Your task to perform on an android device: Add "razer nari" to the cart on amazon, then select checkout. Image 0: 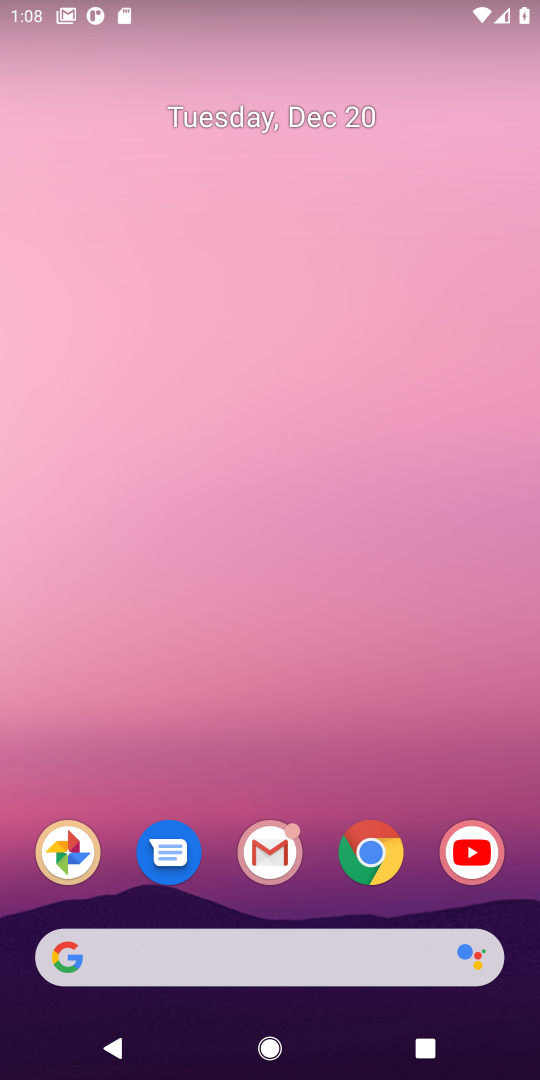
Step 0: click (378, 851)
Your task to perform on an android device: Add "razer nari" to the cart on amazon, then select checkout. Image 1: 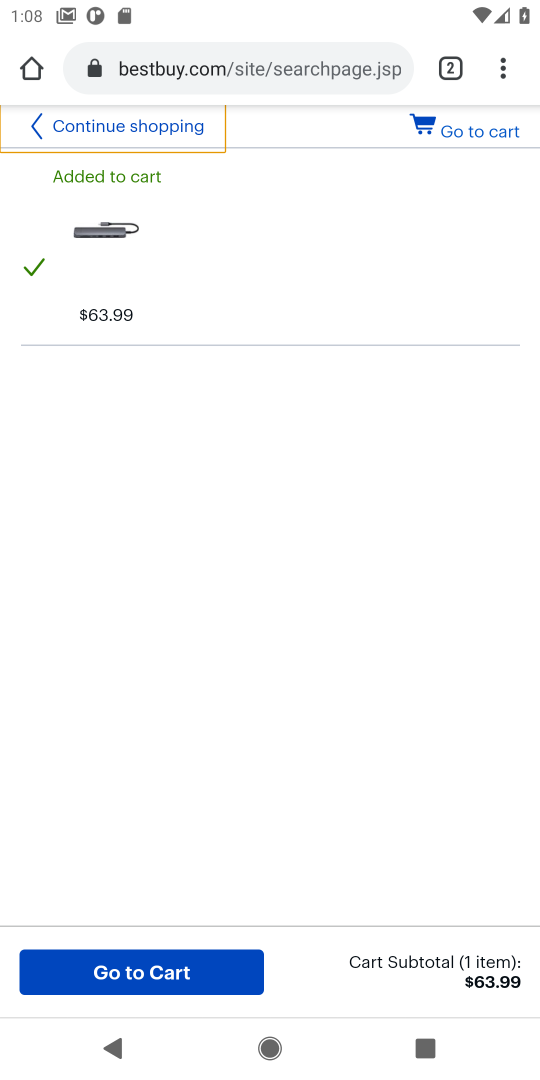
Step 1: click (205, 65)
Your task to perform on an android device: Add "razer nari" to the cart on amazon, then select checkout. Image 2: 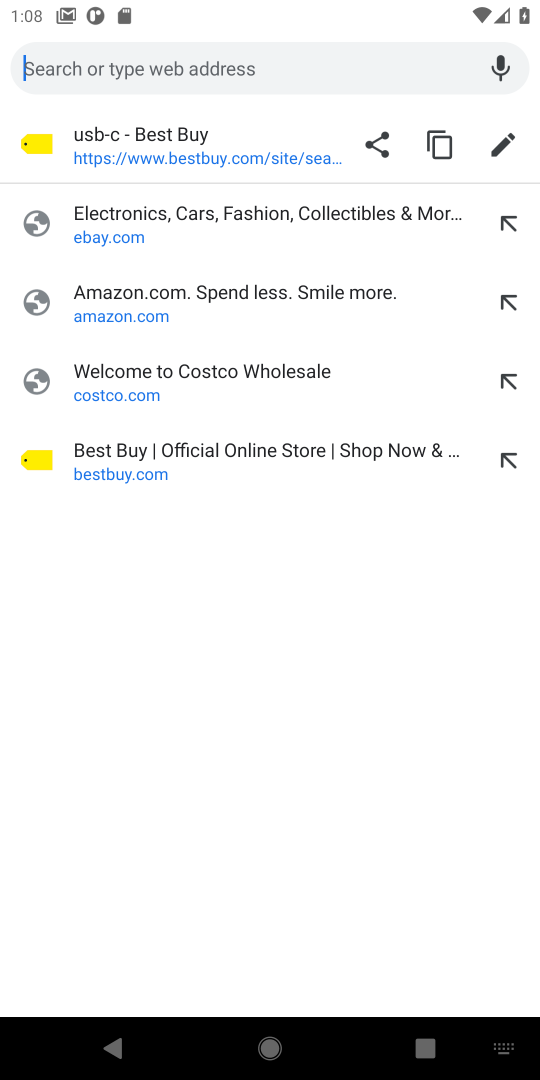
Step 2: click (109, 300)
Your task to perform on an android device: Add "razer nari" to the cart on amazon, then select checkout. Image 3: 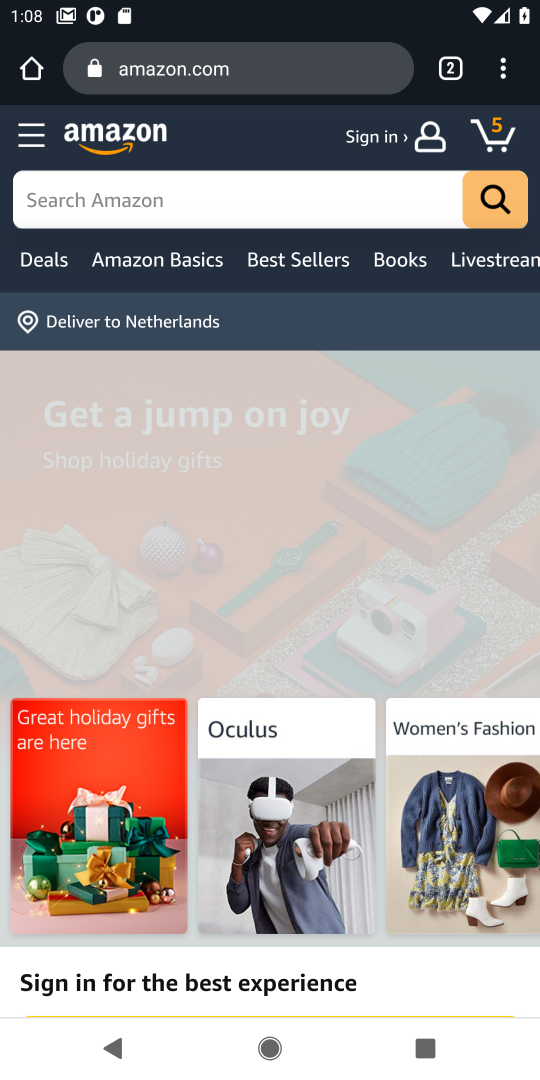
Step 3: click (65, 192)
Your task to perform on an android device: Add "razer nari" to the cart on amazon, then select checkout. Image 4: 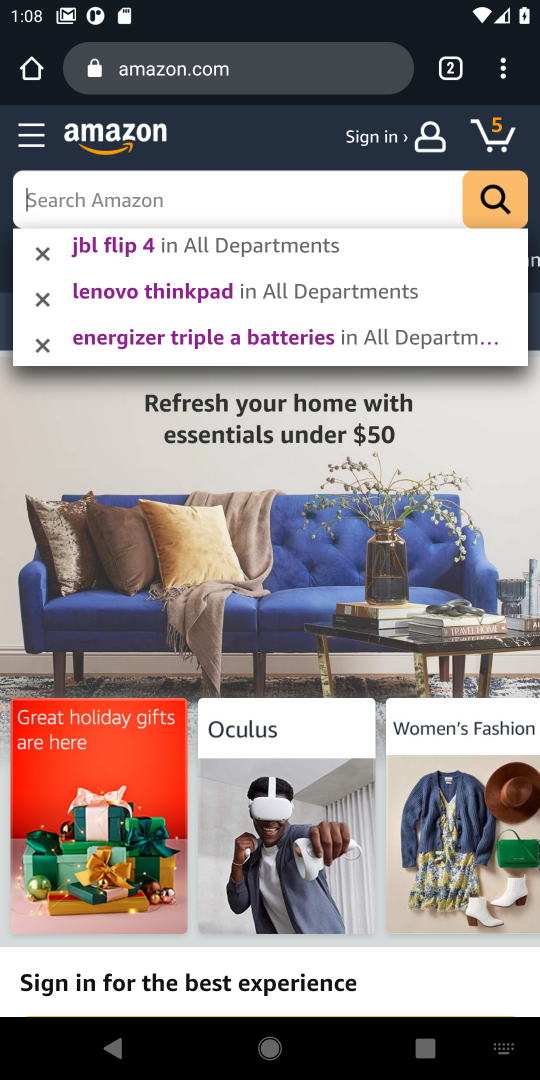
Step 4: type "razer nari"
Your task to perform on an android device: Add "razer nari" to the cart on amazon, then select checkout. Image 5: 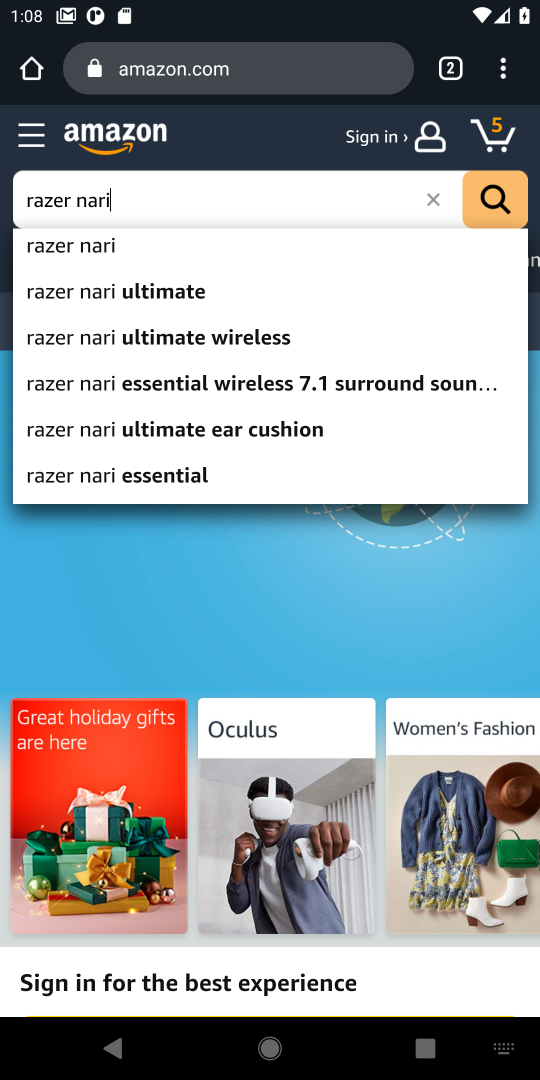
Step 5: click (51, 251)
Your task to perform on an android device: Add "razer nari" to the cart on amazon, then select checkout. Image 6: 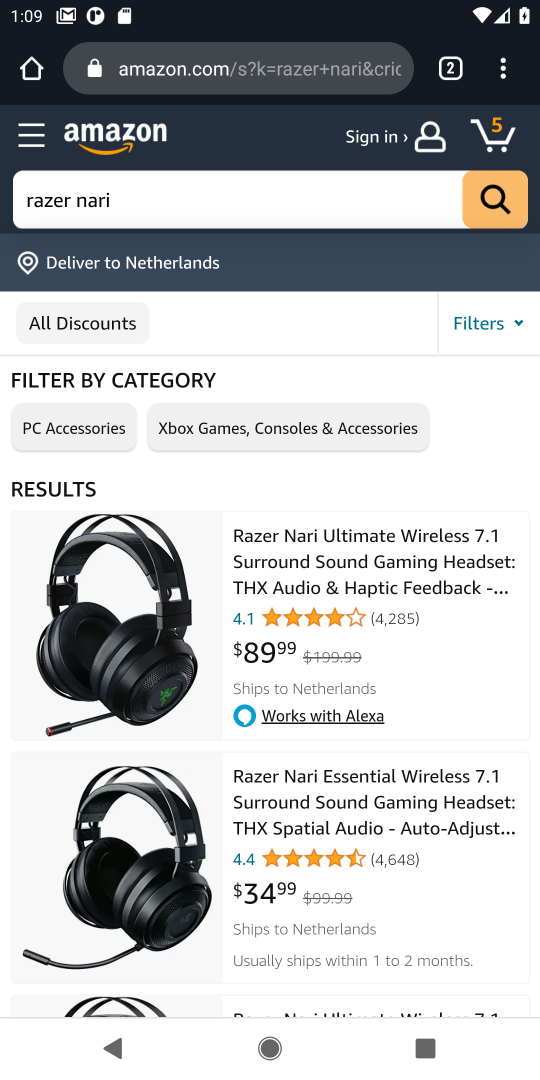
Step 6: click (313, 558)
Your task to perform on an android device: Add "razer nari" to the cart on amazon, then select checkout. Image 7: 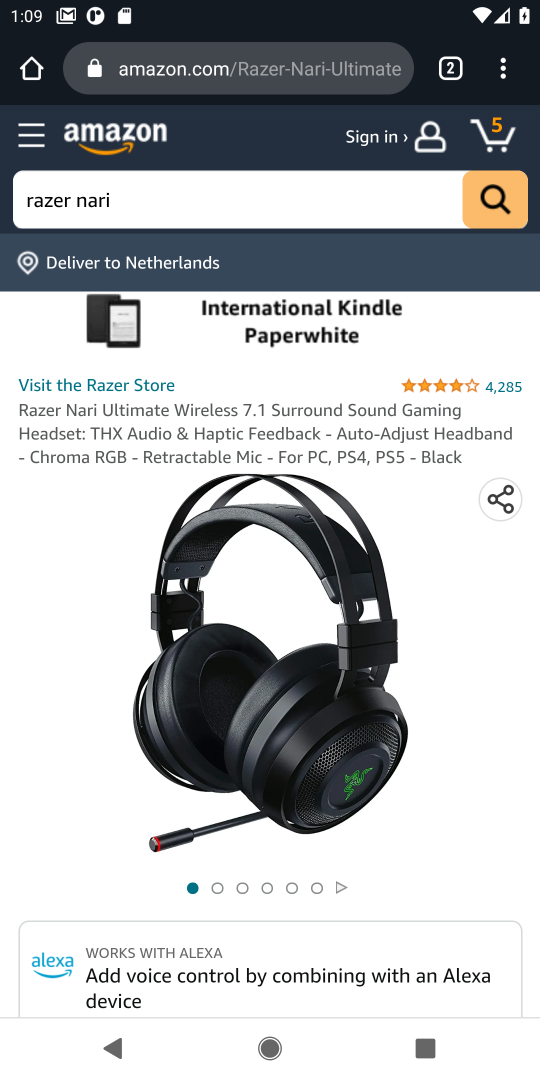
Step 7: drag from (290, 895) to (266, 469)
Your task to perform on an android device: Add "razer nari" to the cart on amazon, then select checkout. Image 8: 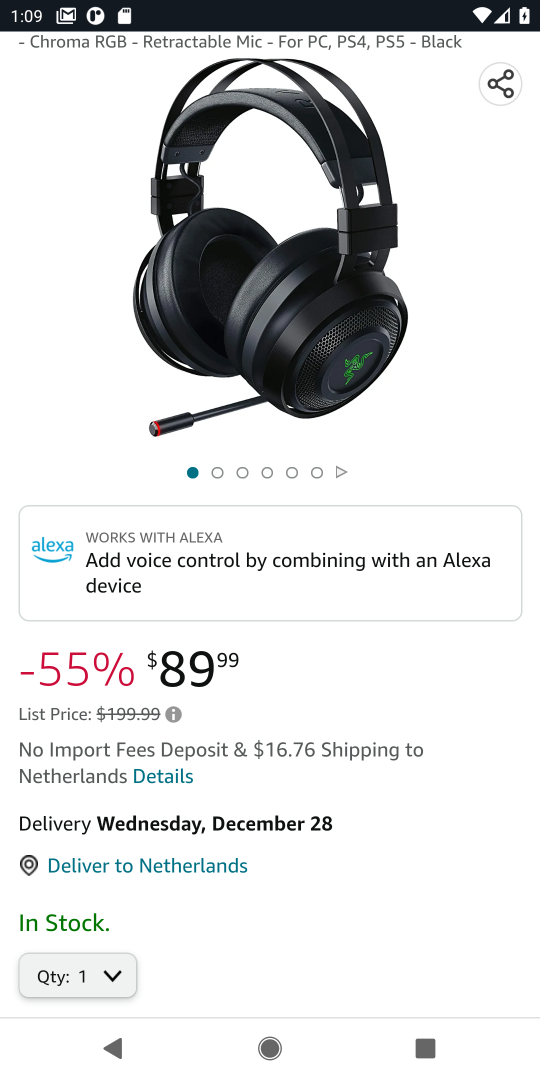
Step 8: drag from (309, 769) to (297, 382)
Your task to perform on an android device: Add "razer nari" to the cart on amazon, then select checkout. Image 9: 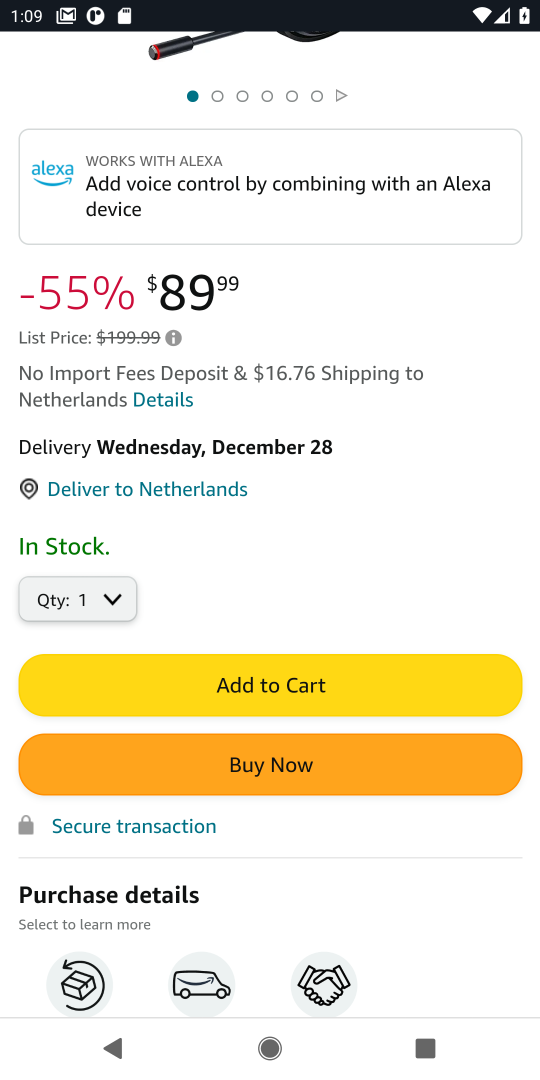
Step 9: click (288, 685)
Your task to perform on an android device: Add "razer nari" to the cart on amazon, then select checkout. Image 10: 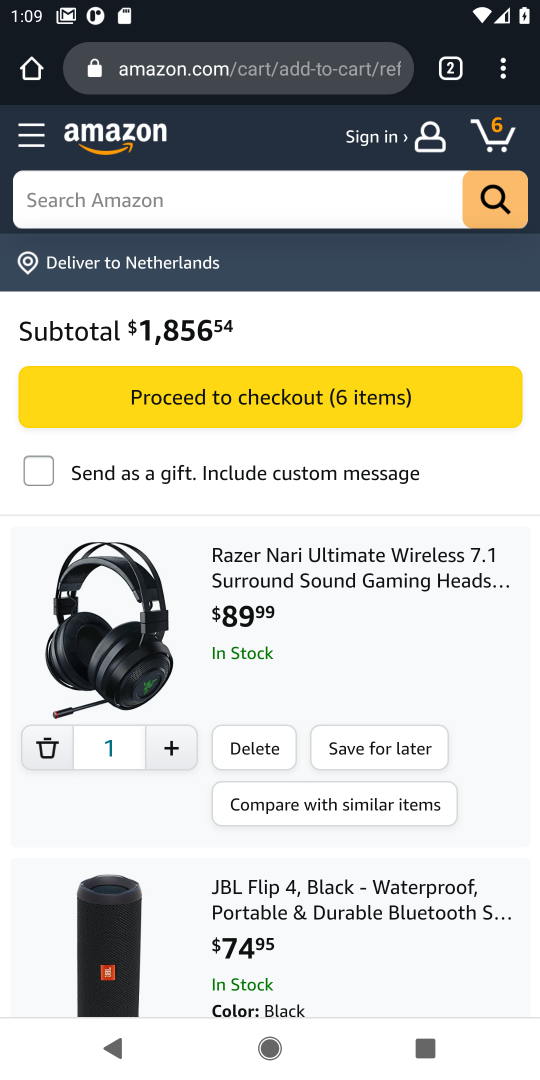
Step 10: click (262, 401)
Your task to perform on an android device: Add "razer nari" to the cart on amazon, then select checkout. Image 11: 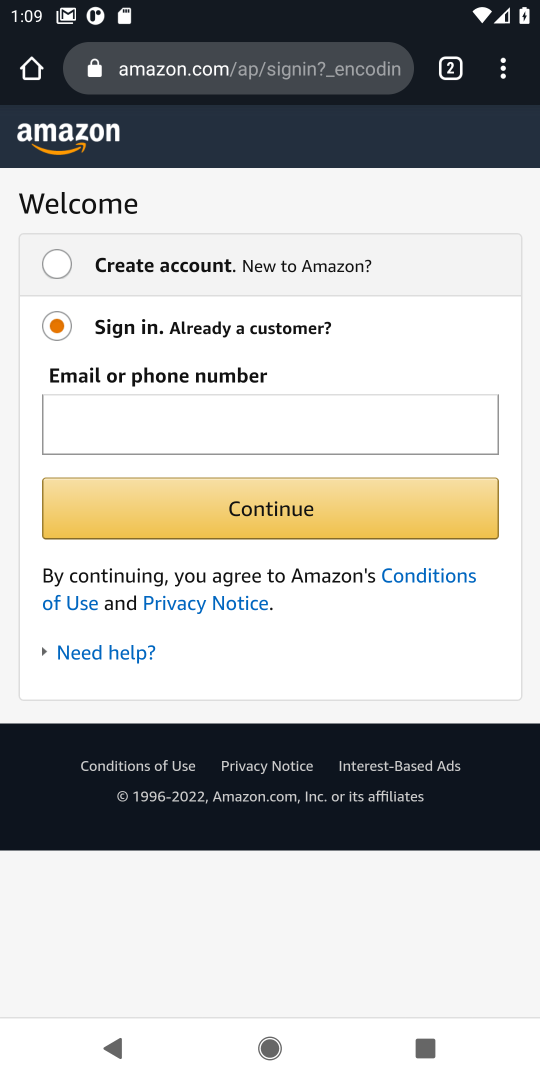
Step 11: task complete